Your task to perform on an android device: uninstall "Firefox Browser" Image 0: 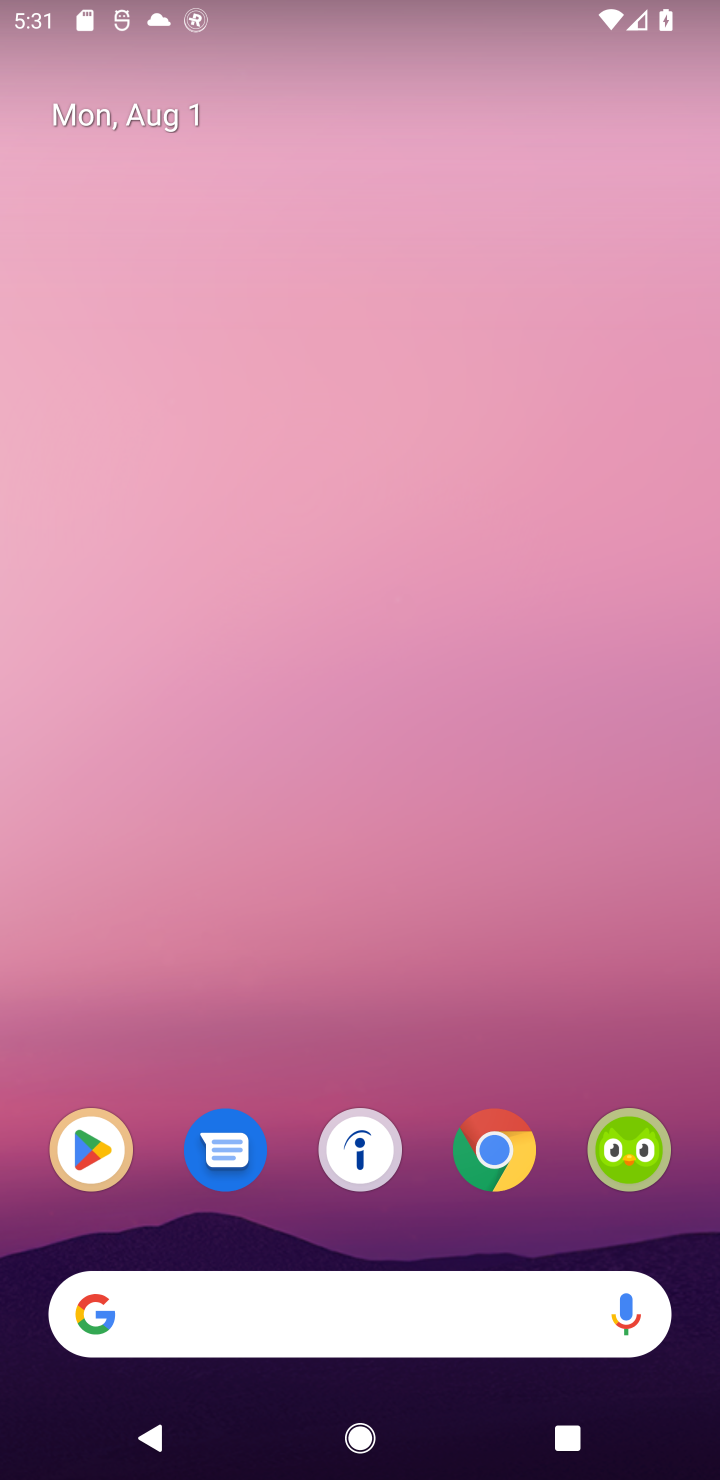
Step 0: click (111, 1163)
Your task to perform on an android device: uninstall "Firefox Browser" Image 1: 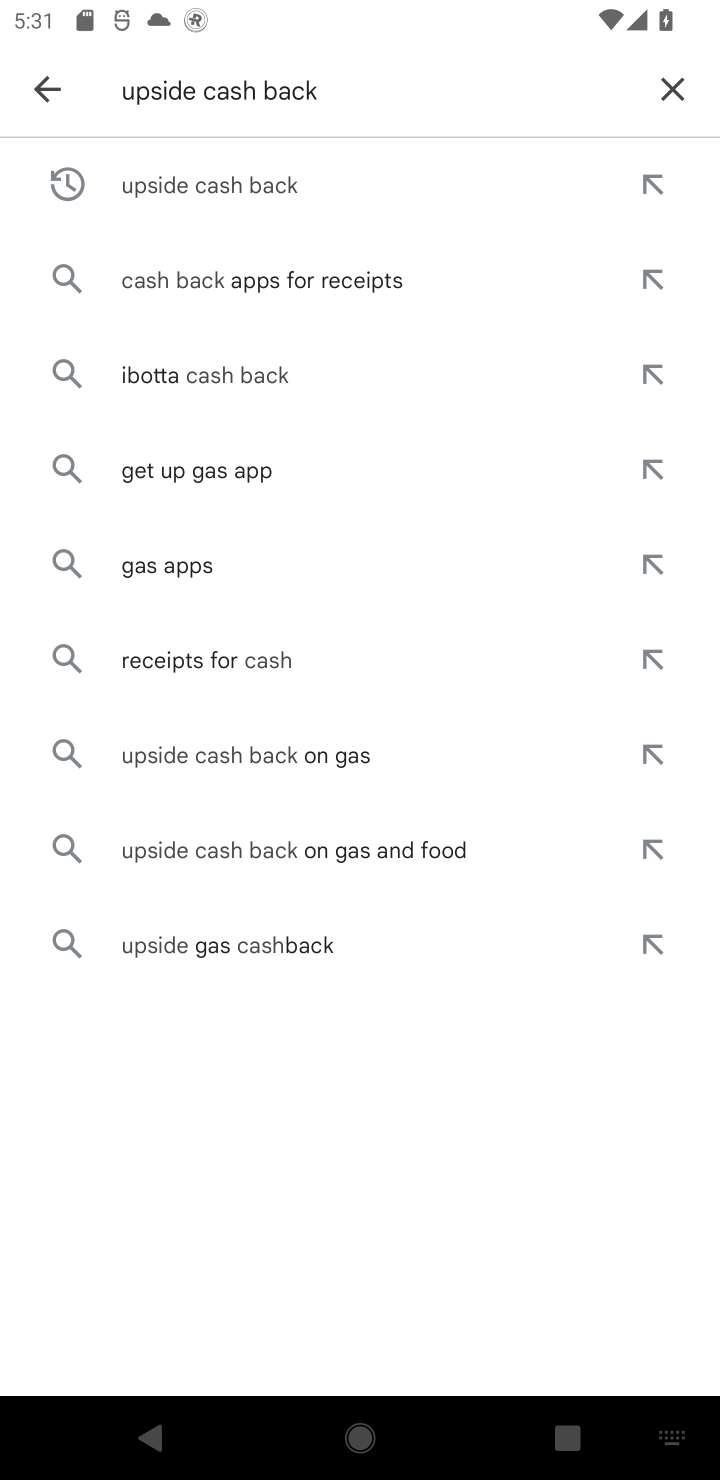
Step 1: press home button
Your task to perform on an android device: uninstall "Firefox Browser" Image 2: 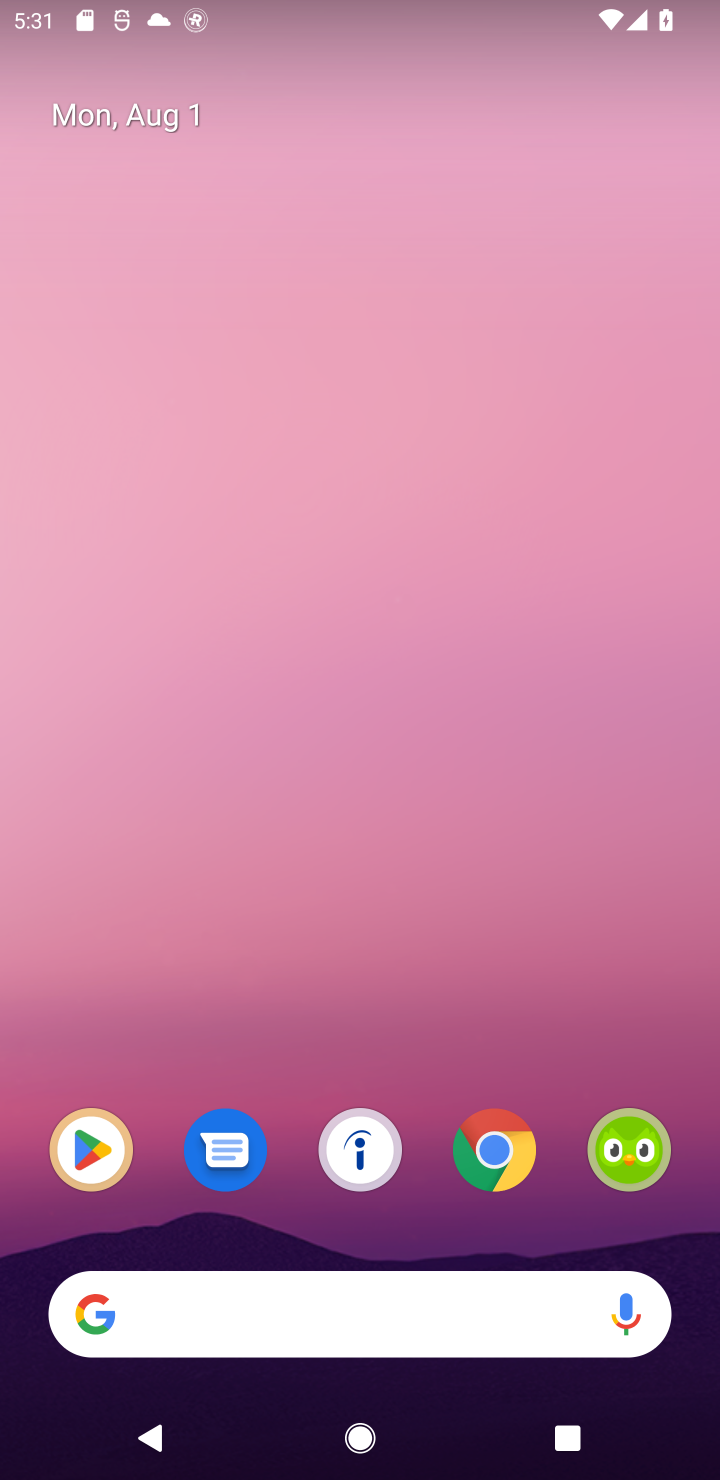
Step 2: drag from (440, 1223) to (374, 9)
Your task to perform on an android device: uninstall "Firefox Browser" Image 3: 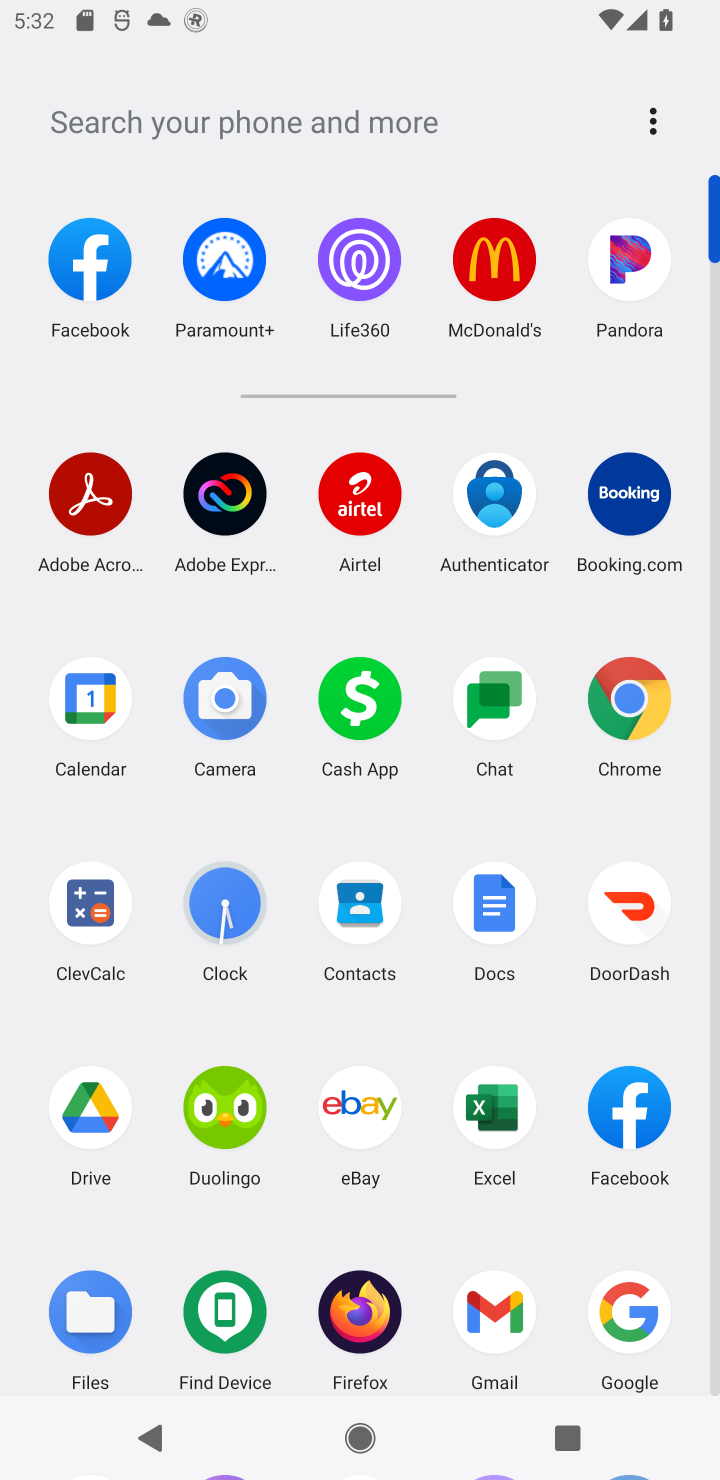
Step 3: click (713, 1369)
Your task to perform on an android device: uninstall "Firefox Browser" Image 4: 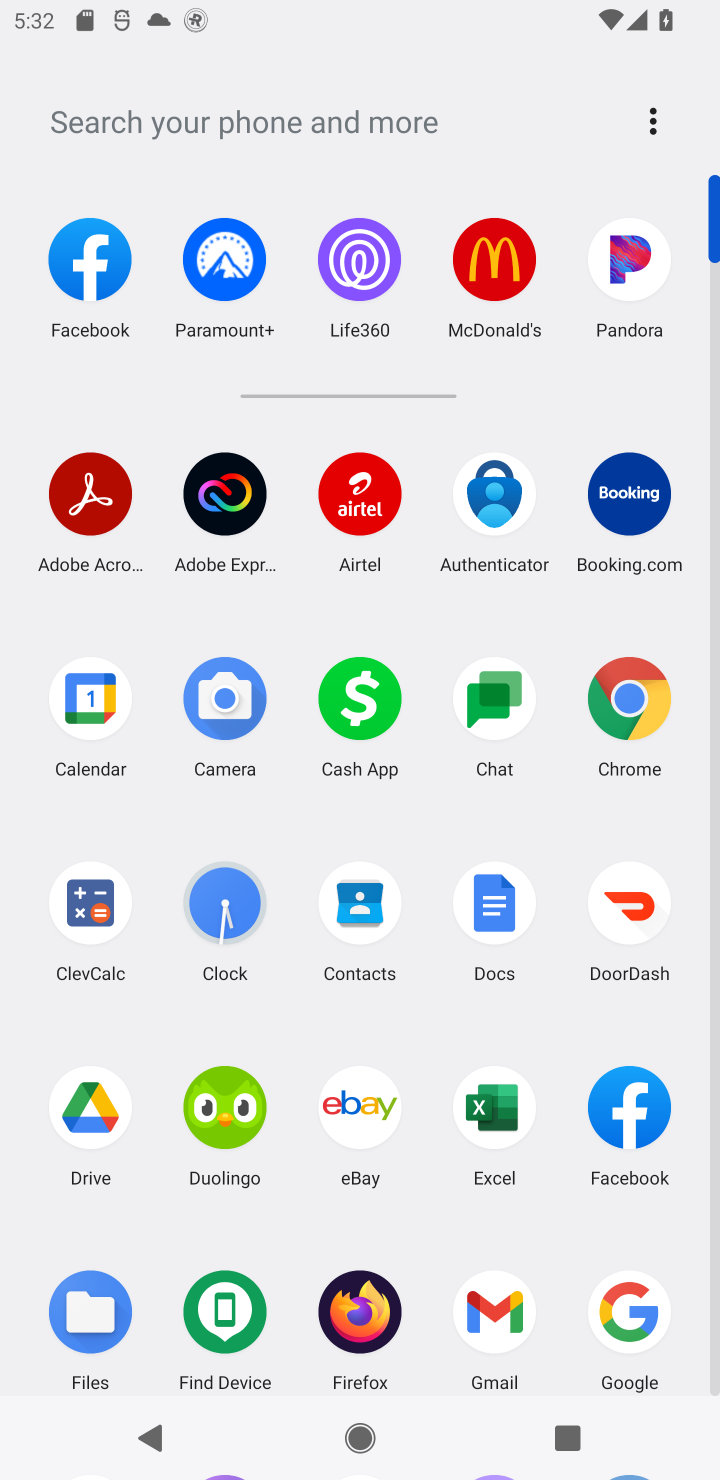
Step 4: click (717, 1380)
Your task to perform on an android device: uninstall "Firefox Browser" Image 5: 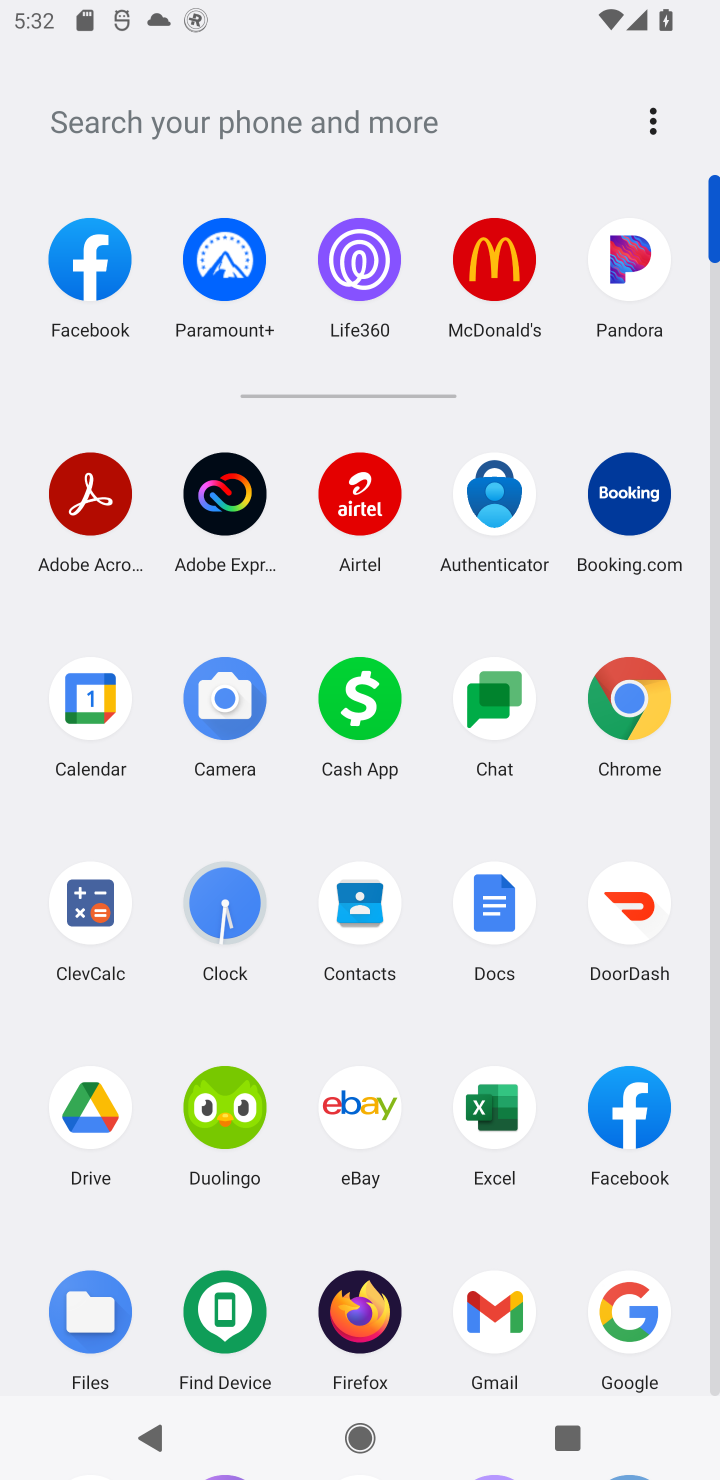
Step 5: click (717, 1380)
Your task to perform on an android device: uninstall "Firefox Browser" Image 6: 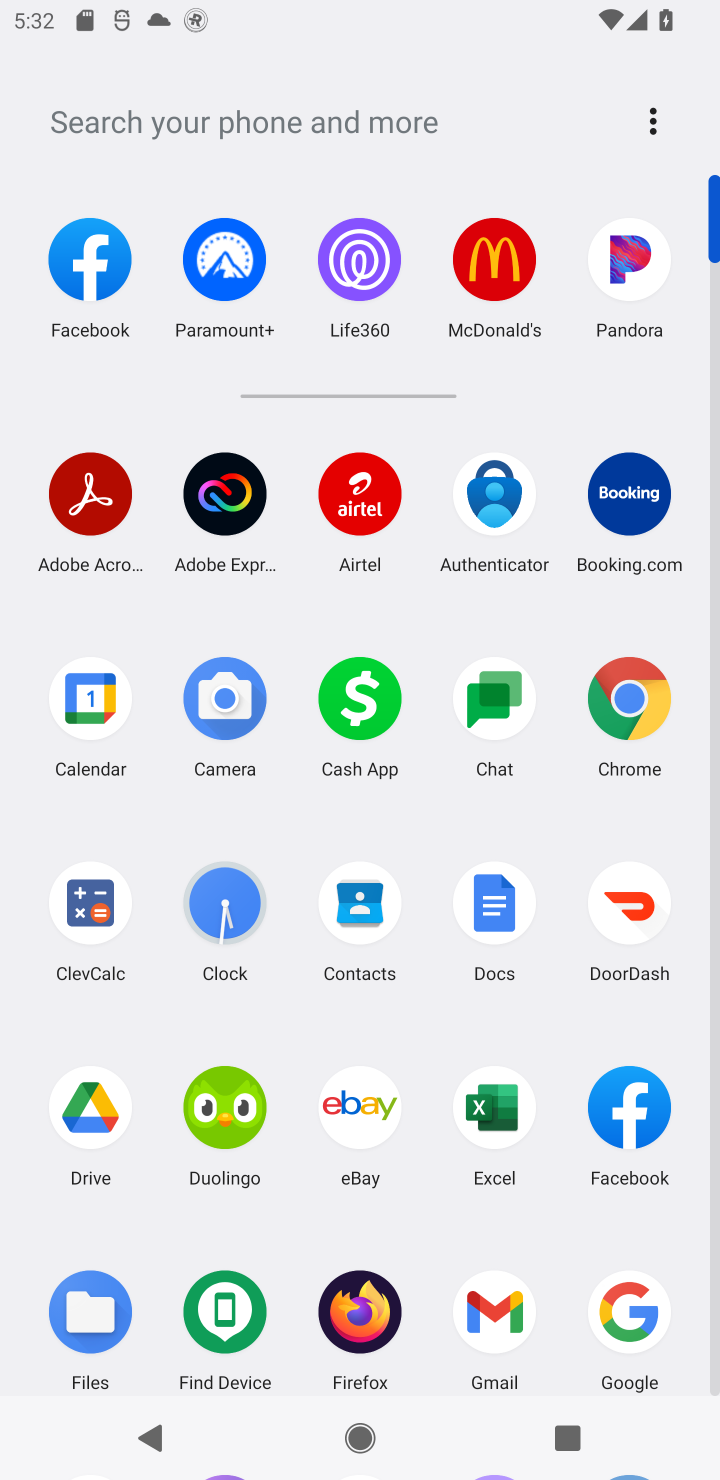
Step 6: click (717, 1380)
Your task to perform on an android device: uninstall "Firefox Browser" Image 7: 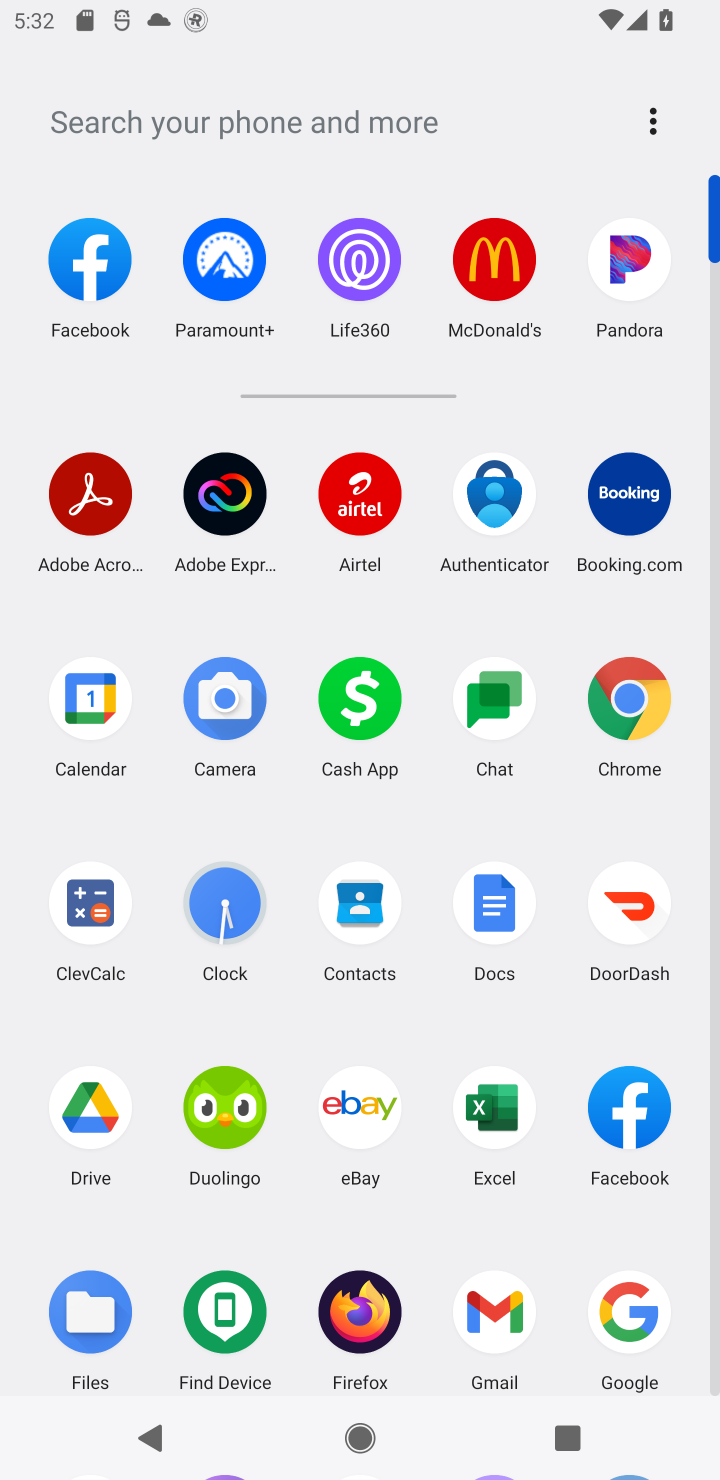
Step 7: click (717, 1380)
Your task to perform on an android device: uninstall "Firefox Browser" Image 8: 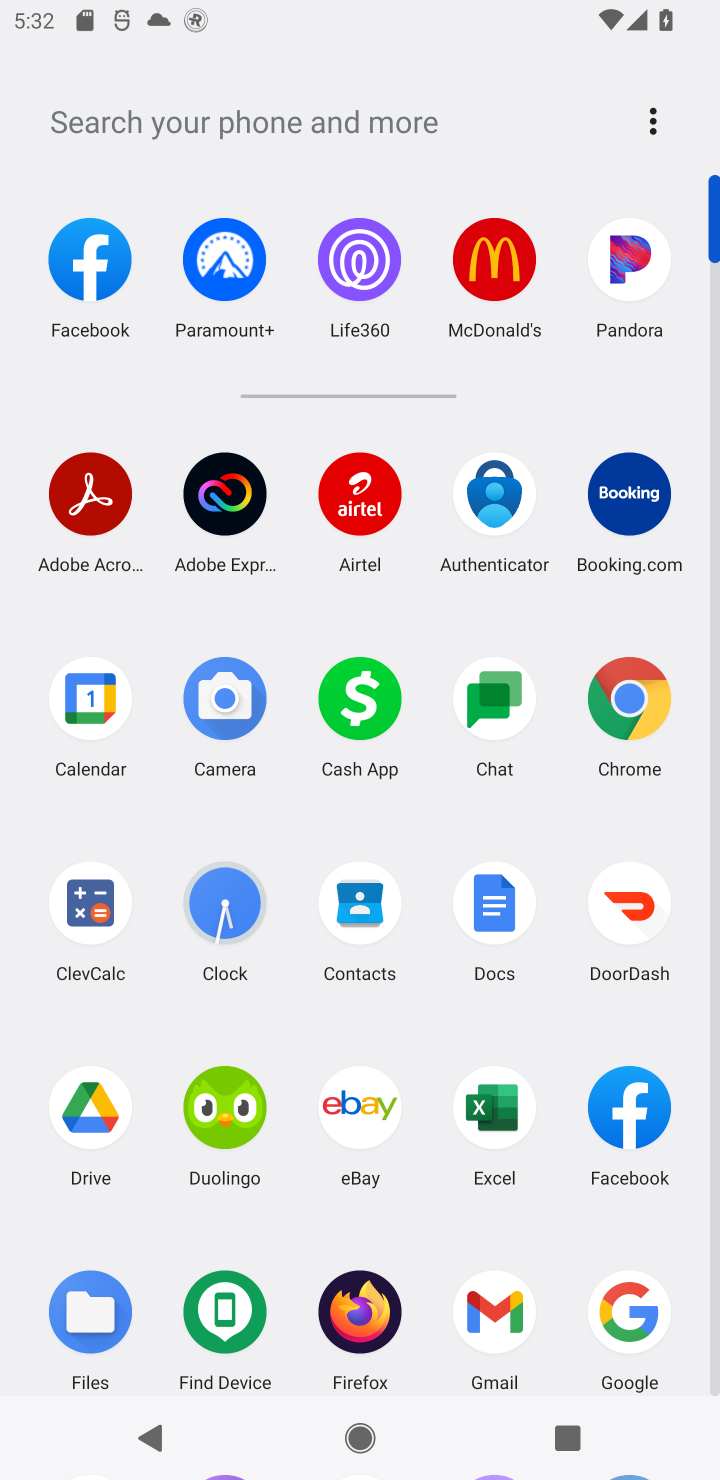
Step 8: click (307, 119)
Your task to perform on an android device: uninstall "Firefox Browser" Image 9: 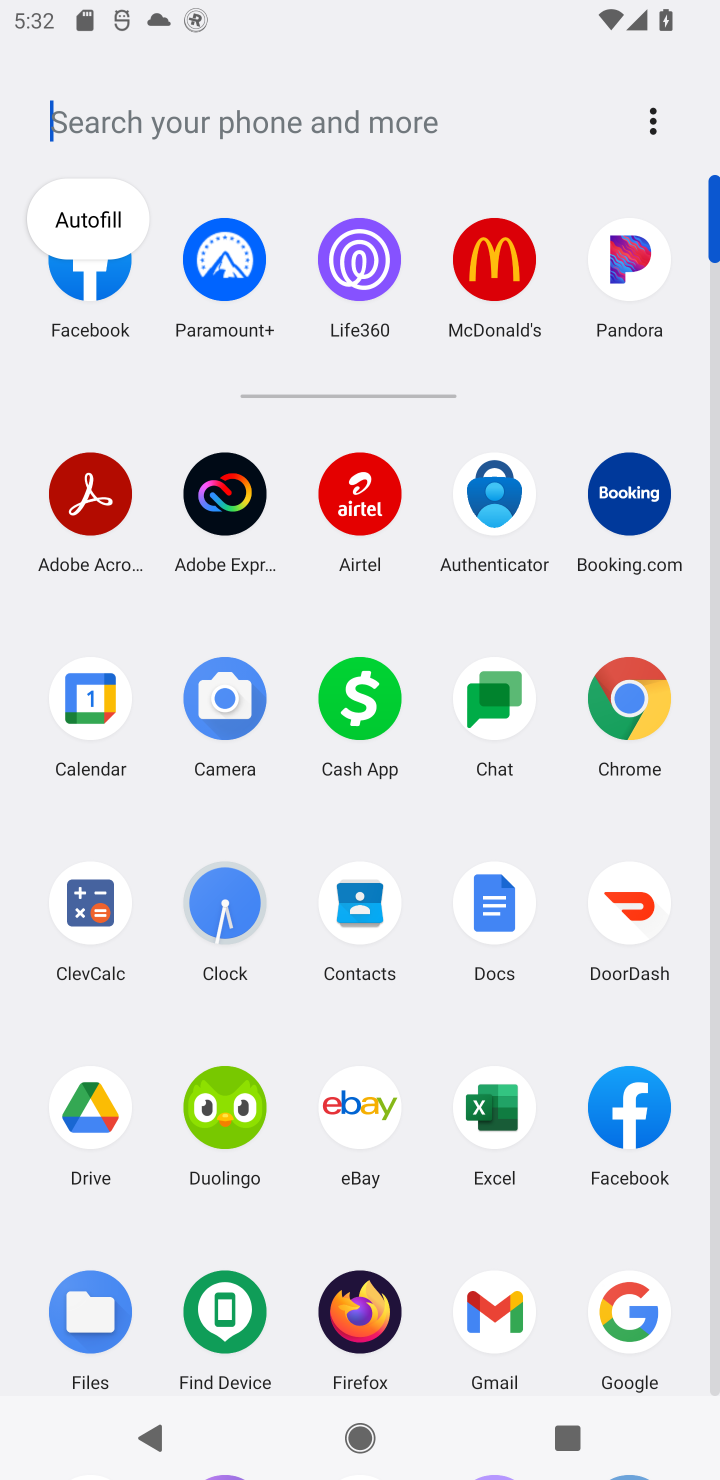
Step 9: type "firefox"
Your task to perform on an android device: uninstall "Firefox Browser" Image 10: 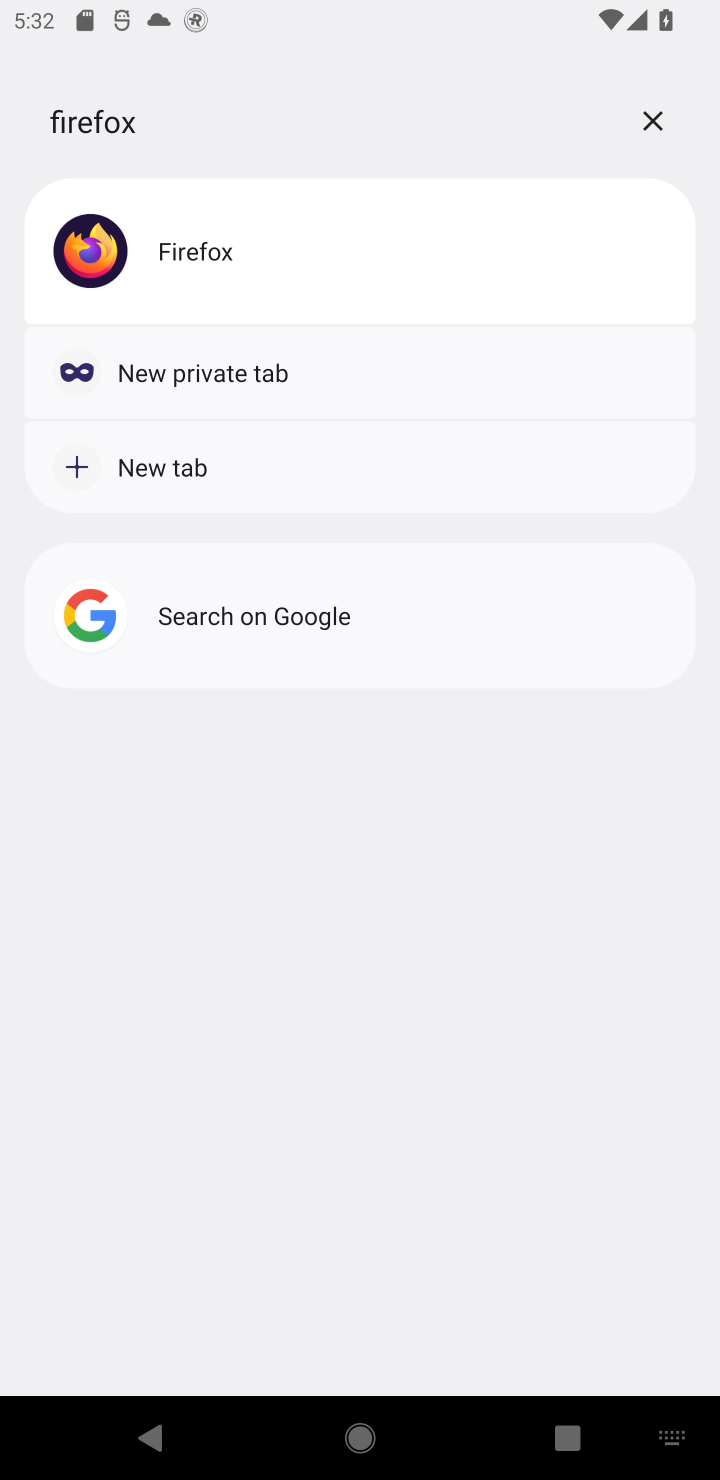
Step 10: click (255, 242)
Your task to perform on an android device: uninstall "Firefox Browser" Image 11: 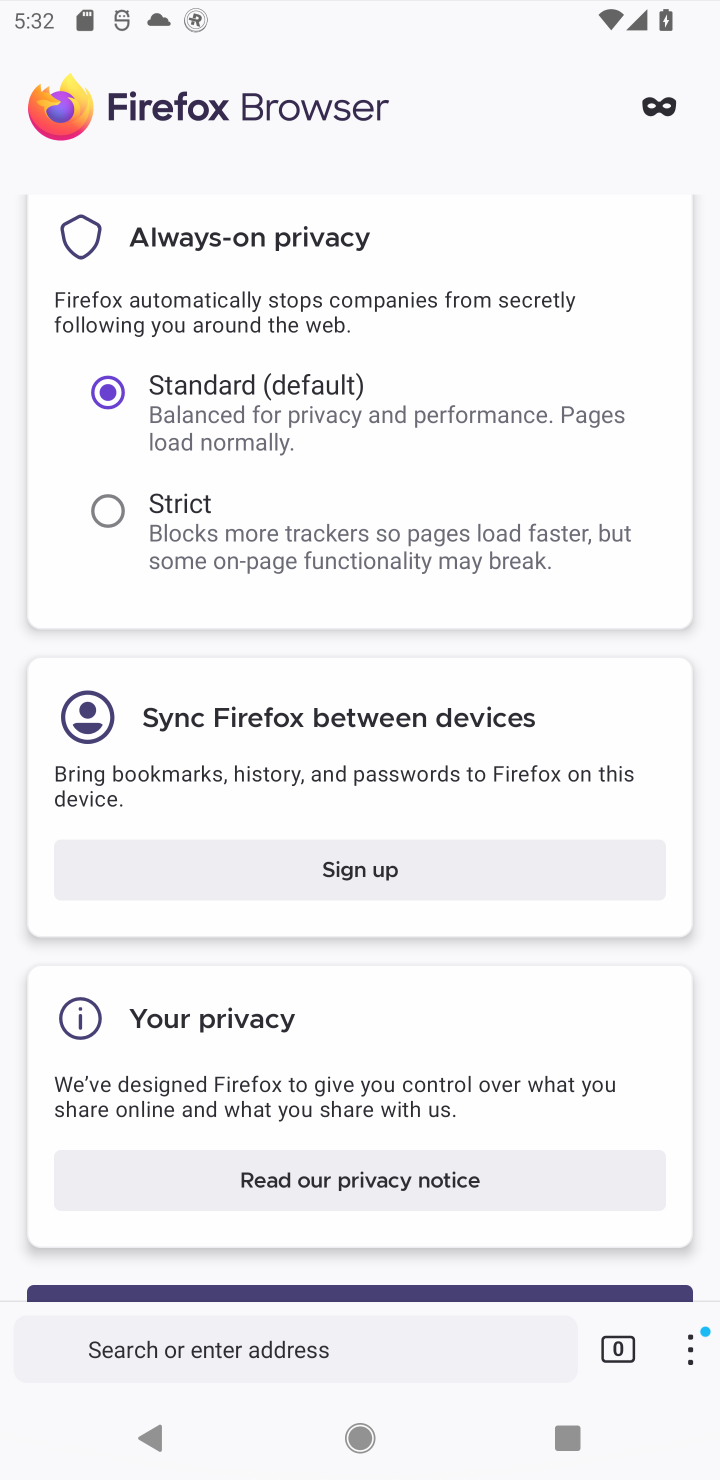
Step 11: task complete